Your task to perform on an android device: see tabs open on other devices in the chrome app Image 0: 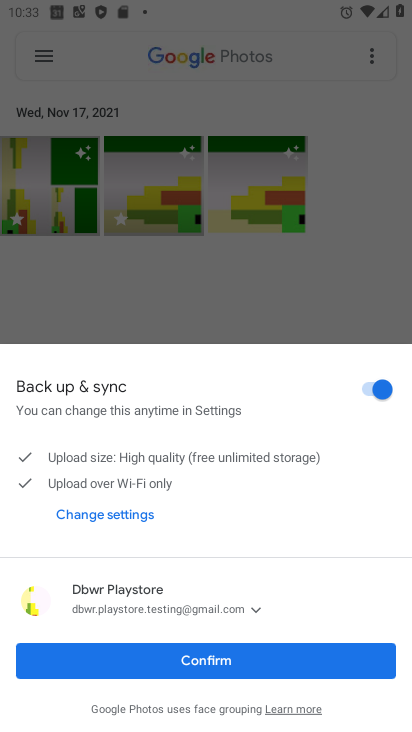
Step 0: press home button
Your task to perform on an android device: see tabs open on other devices in the chrome app Image 1: 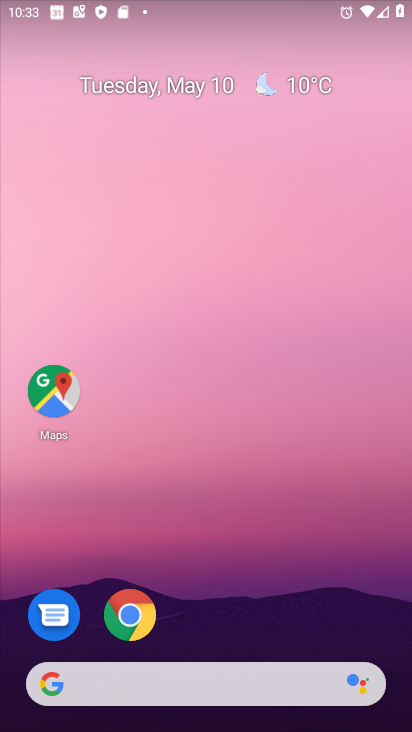
Step 1: click (126, 609)
Your task to perform on an android device: see tabs open on other devices in the chrome app Image 2: 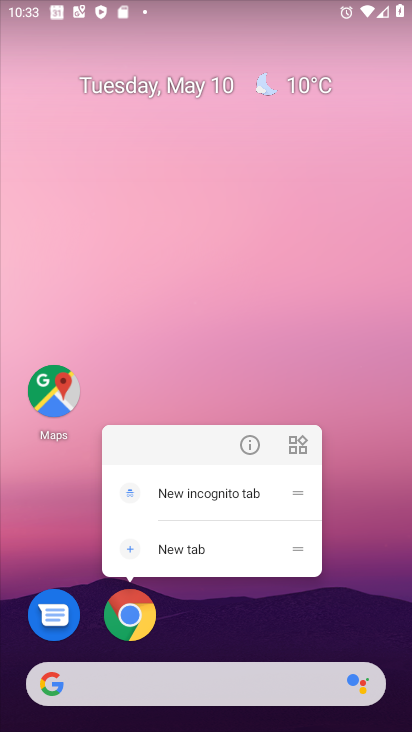
Step 2: click (132, 610)
Your task to perform on an android device: see tabs open on other devices in the chrome app Image 3: 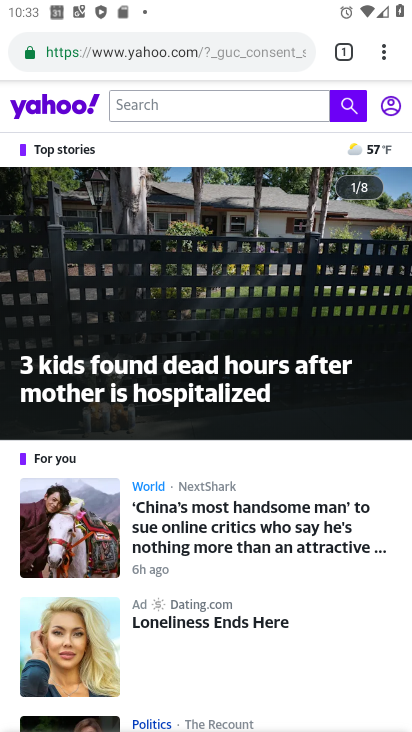
Step 3: click (388, 49)
Your task to perform on an android device: see tabs open on other devices in the chrome app Image 4: 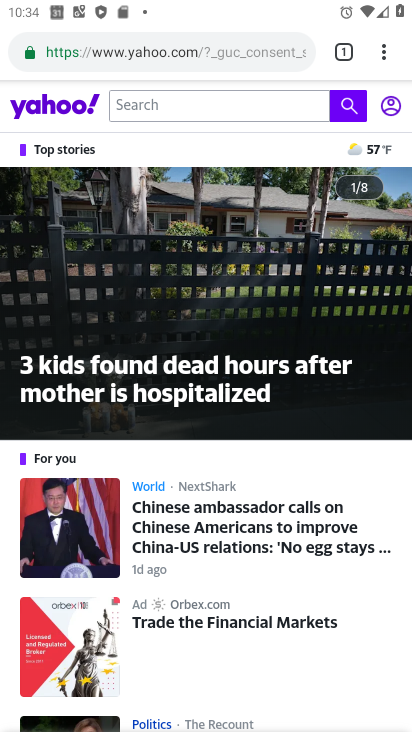
Step 4: click (379, 47)
Your task to perform on an android device: see tabs open on other devices in the chrome app Image 5: 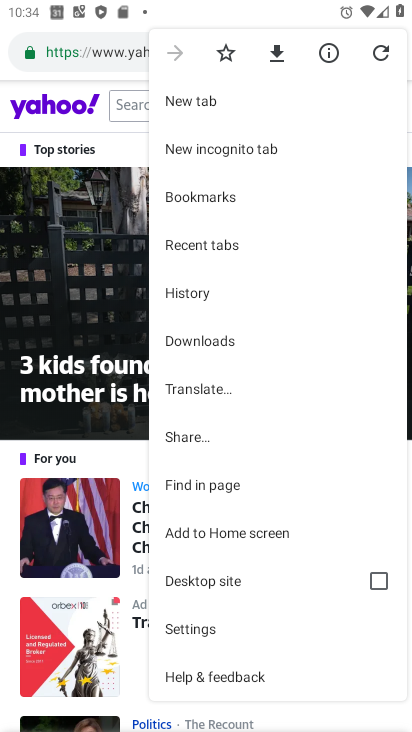
Step 5: click (254, 243)
Your task to perform on an android device: see tabs open on other devices in the chrome app Image 6: 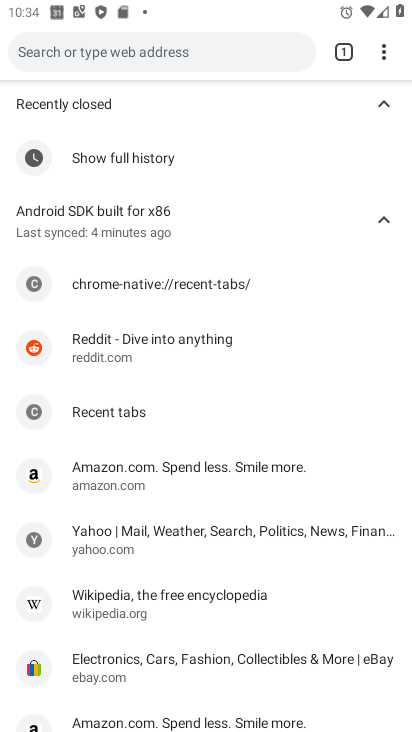
Step 6: task complete